Your task to perform on an android device: Open wifi settings Image 0: 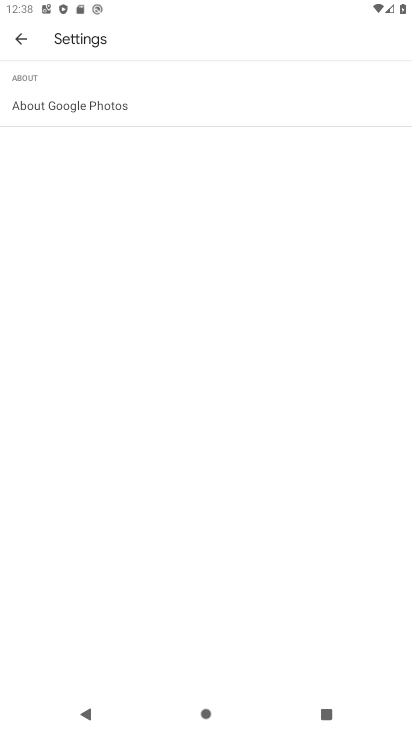
Step 0: press back button
Your task to perform on an android device: Open wifi settings Image 1: 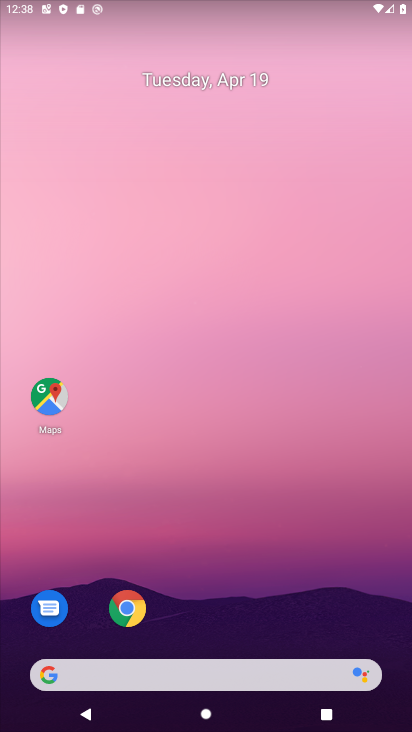
Step 1: drag from (238, 618) to (340, 255)
Your task to perform on an android device: Open wifi settings Image 2: 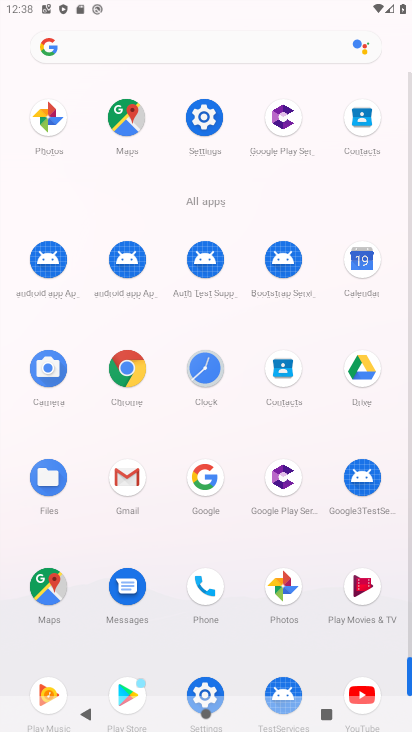
Step 2: click (206, 684)
Your task to perform on an android device: Open wifi settings Image 3: 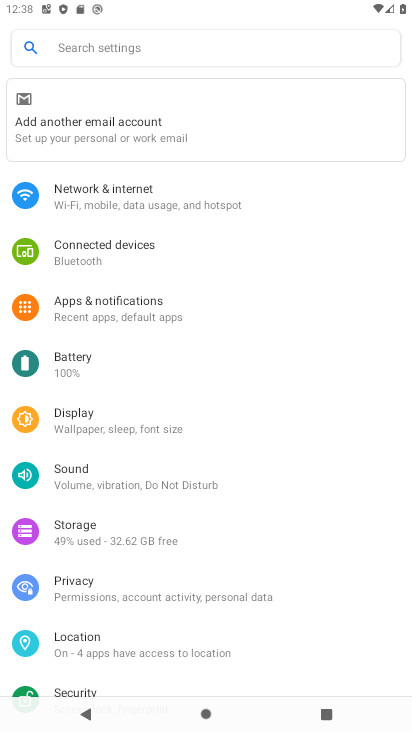
Step 3: click (148, 204)
Your task to perform on an android device: Open wifi settings Image 4: 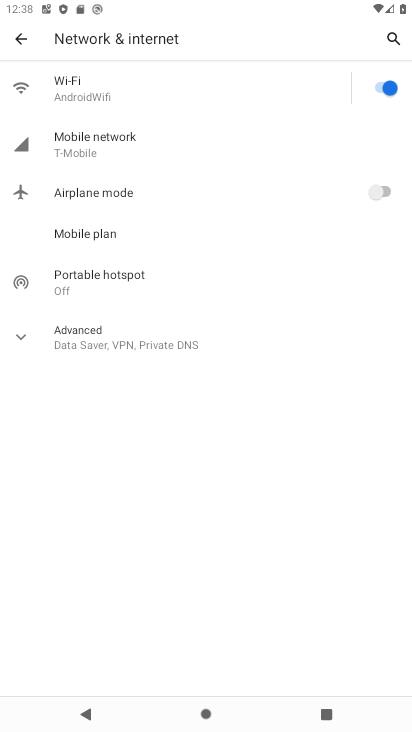
Step 4: click (190, 103)
Your task to perform on an android device: Open wifi settings Image 5: 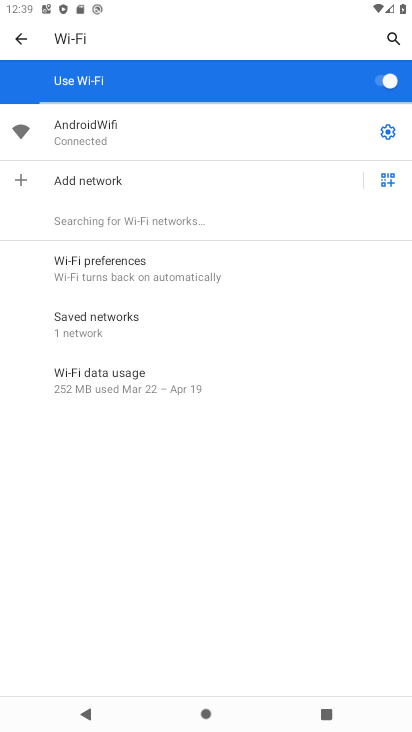
Step 5: task complete